Your task to perform on an android device: Open Google Chrome and open the bookmarks view Image 0: 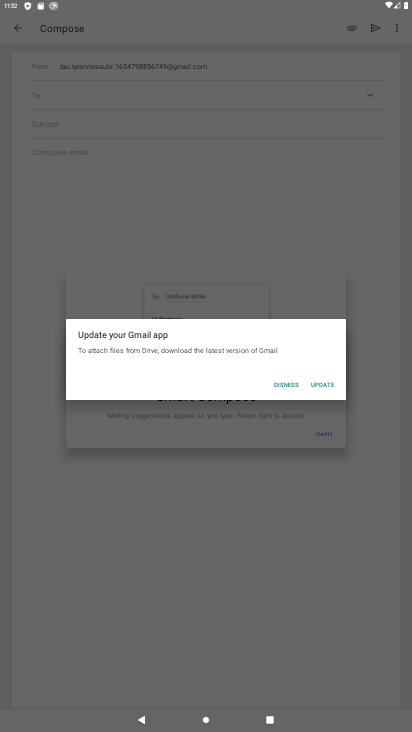
Step 0: press home button
Your task to perform on an android device: Open Google Chrome and open the bookmarks view Image 1: 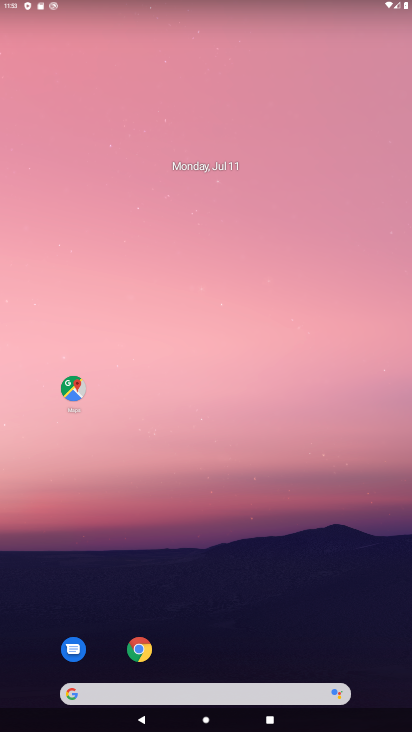
Step 1: click (149, 643)
Your task to perform on an android device: Open Google Chrome and open the bookmarks view Image 2: 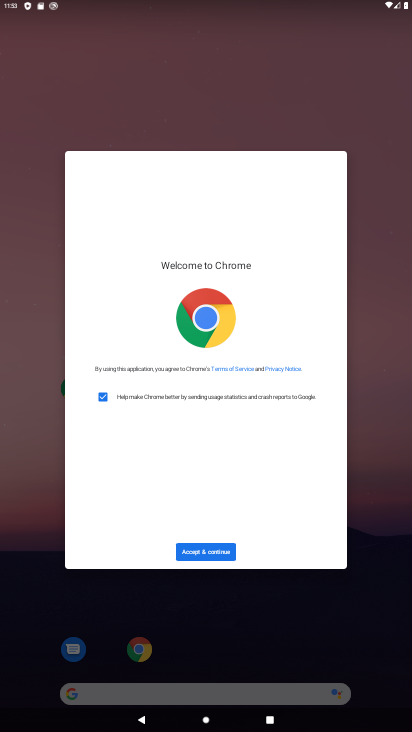
Step 2: click (211, 553)
Your task to perform on an android device: Open Google Chrome and open the bookmarks view Image 3: 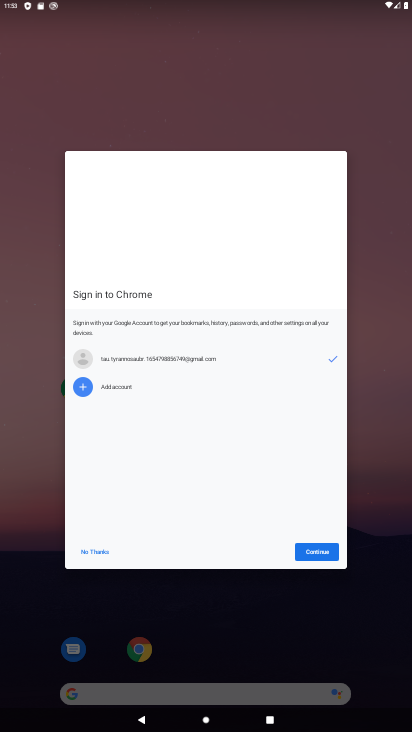
Step 3: click (329, 555)
Your task to perform on an android device: Open Google Chrome and open the bookmarks view Image 4: 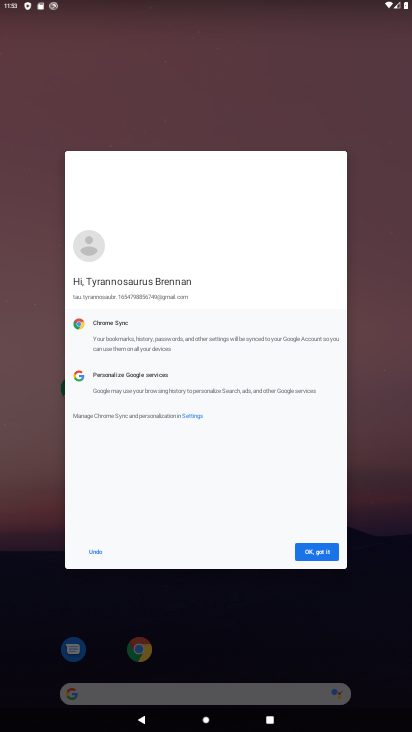
Step 4: click (329, 555)
Your task to perform on an android device: Open Google Chrome and open the bookmarks view Image 5: 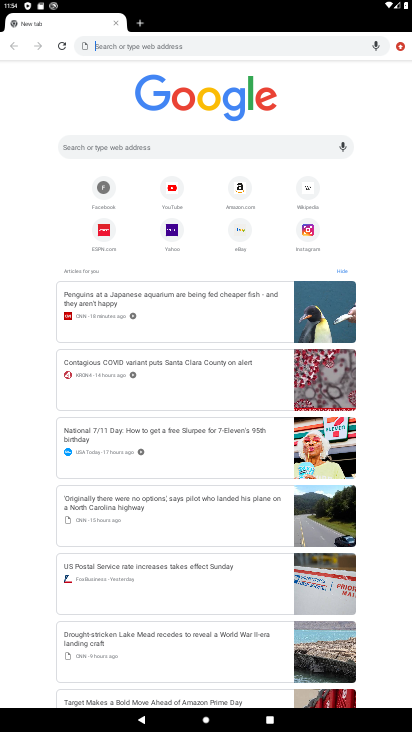
Step 5: click (396, 53)
Your task to perform on an android device: Open Google Chrome and open the bookmarks view Image 6: 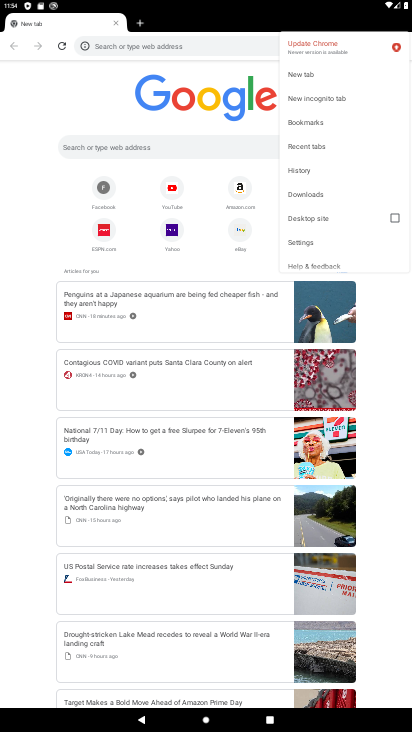
Step 6: click (327, 124)
Your task to perform on an android device: Open Google Chrome and open the bookmarks view Image 7: 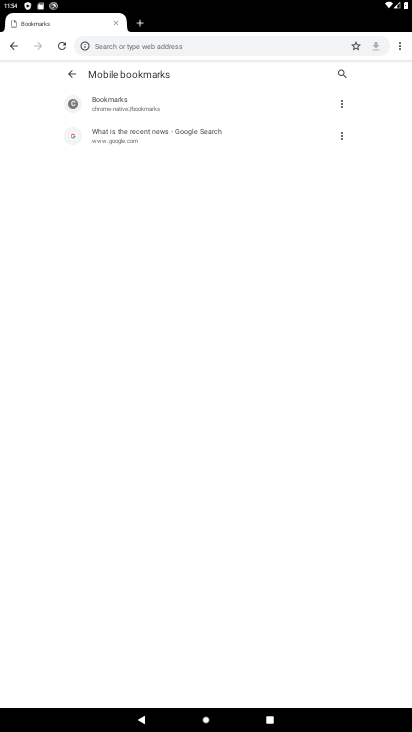
Step 7: task complete